Your task to perform on an android device: Find coffee shops on Maps Image 0: 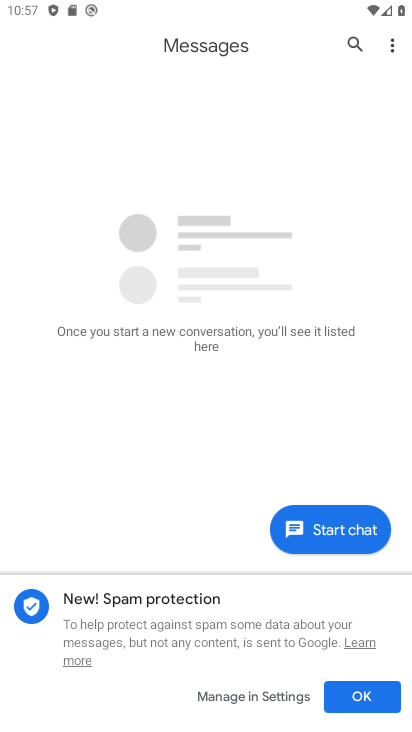
Step 0: press back button
Your task to perform on an android device: Find coffee shops on Maps Image 1: 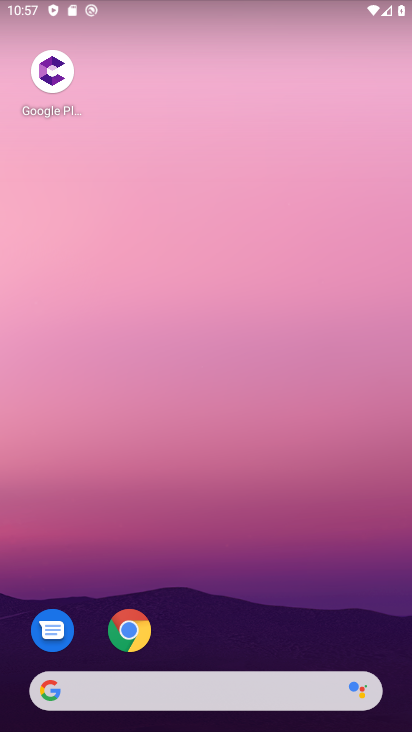
Step 1: drag from (242, 590) to (196, 118)
Your task to perform on an android device: Find coffee shops on Maps Image 2: 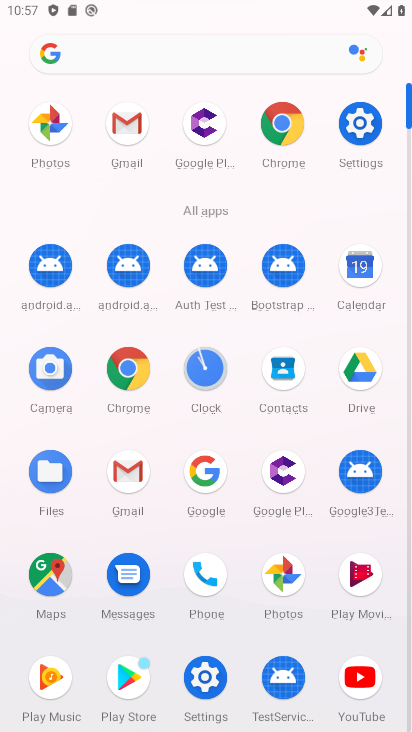
Step 2: click (47, 577)
Your task to perform on an android device: Find coffee shops on Maps Image 3: 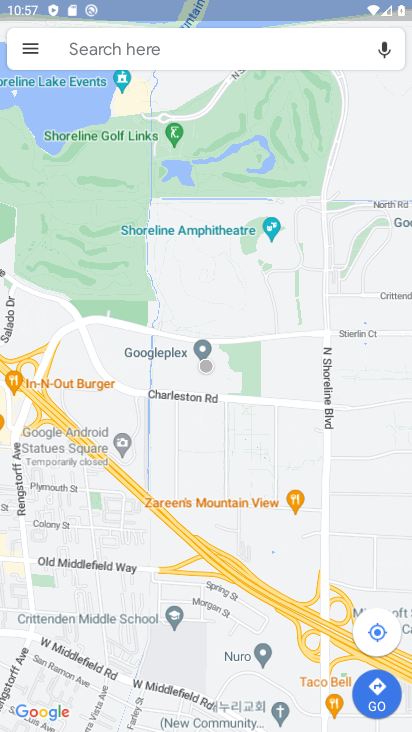
Step 3: click (146, 50)
Your task to perform on an android device: Find coffee shops on Maps Image 4: 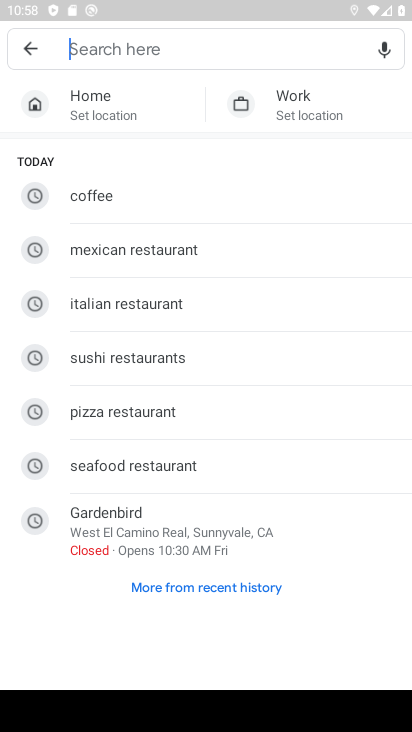
Step 4: type "coffee shops"
Your task to perform on an android device: Find coffee shops on Maps Image 5: 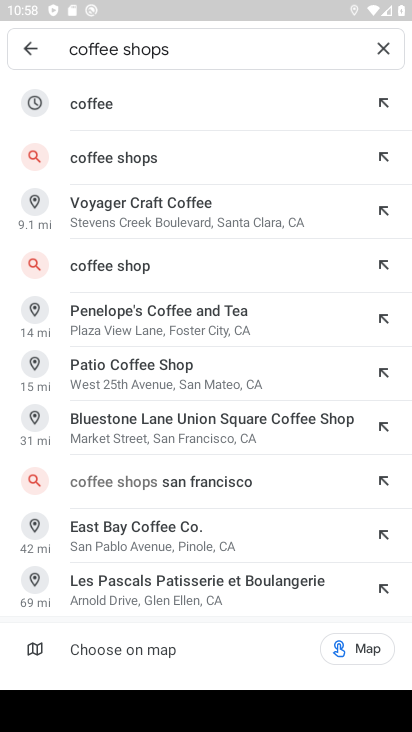
Step 5: click (133, 160)
Your task to perform on an android device: Find coffee shops on Maps Image 6: 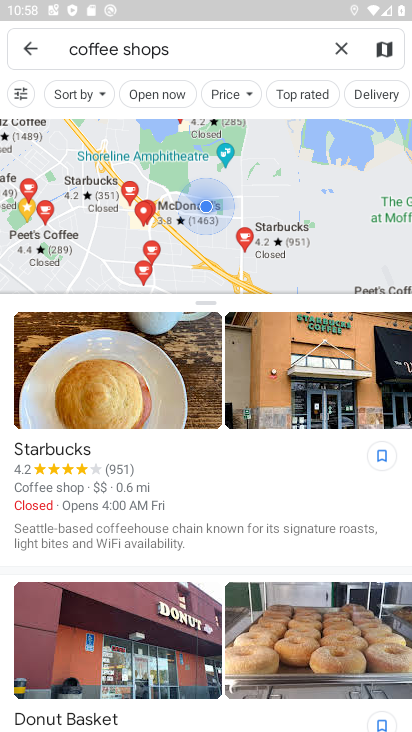
Step 6: task complete